Your task to perform on an android device: Open Google Image 0: 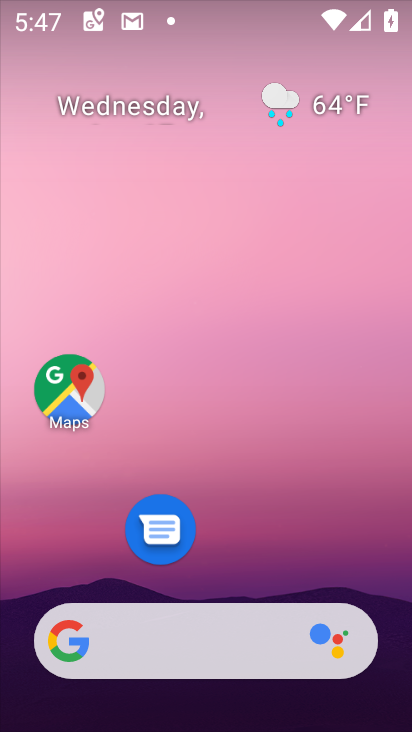
Step 0: click (163, 649)
Your task to perform on an android device: Open Google Image 1: 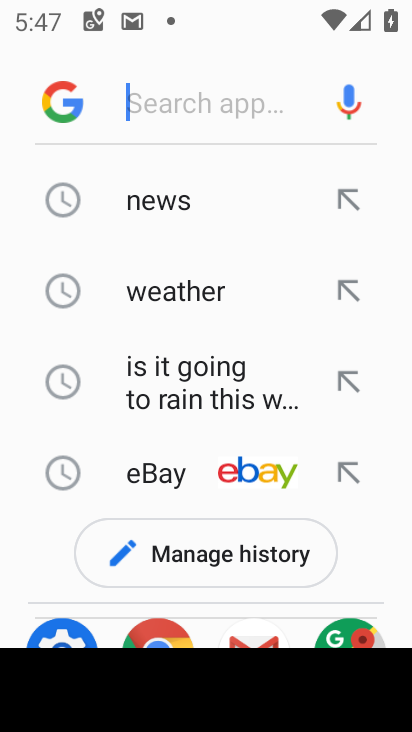
Step 1: task complete